Your task to perform on an android device: turn on sleep mode Image 0: 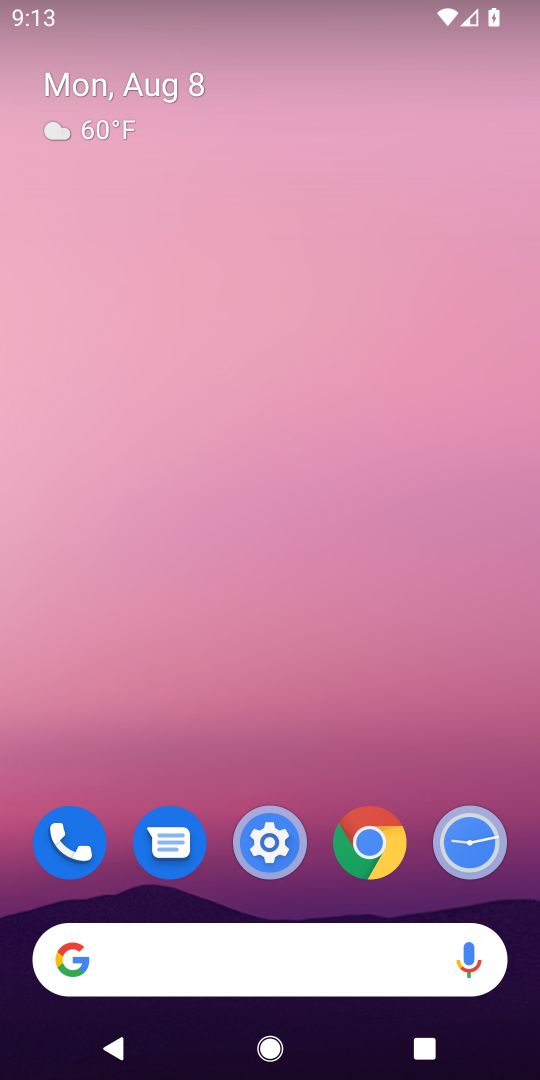
Step 0: click (268, 852)
Your task to perform on an android device: turn on sleep mode Image 1: 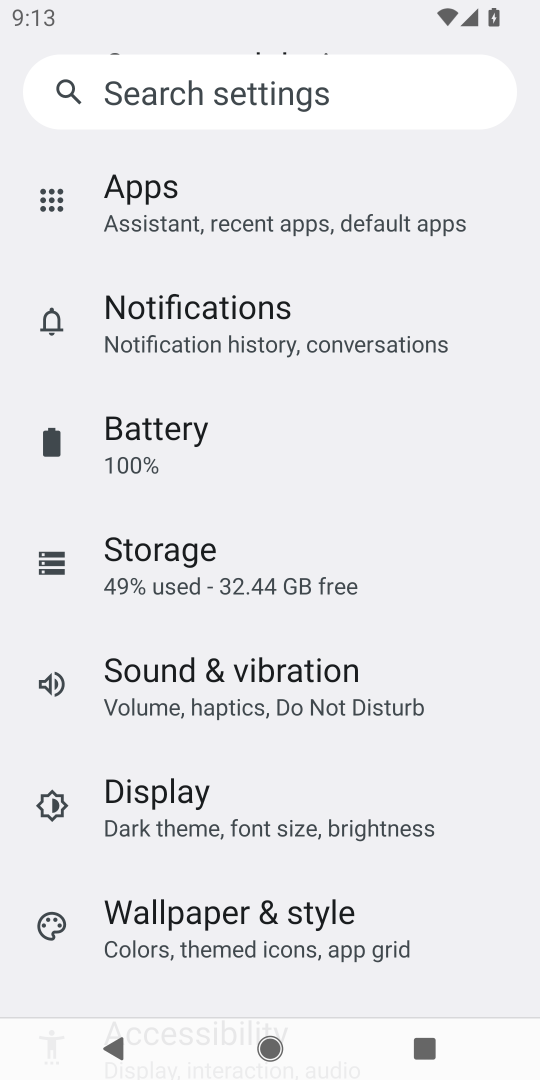
Step 1: click (208, 791)
Your task to perform on an android device: turn on sleep mode Image 2: 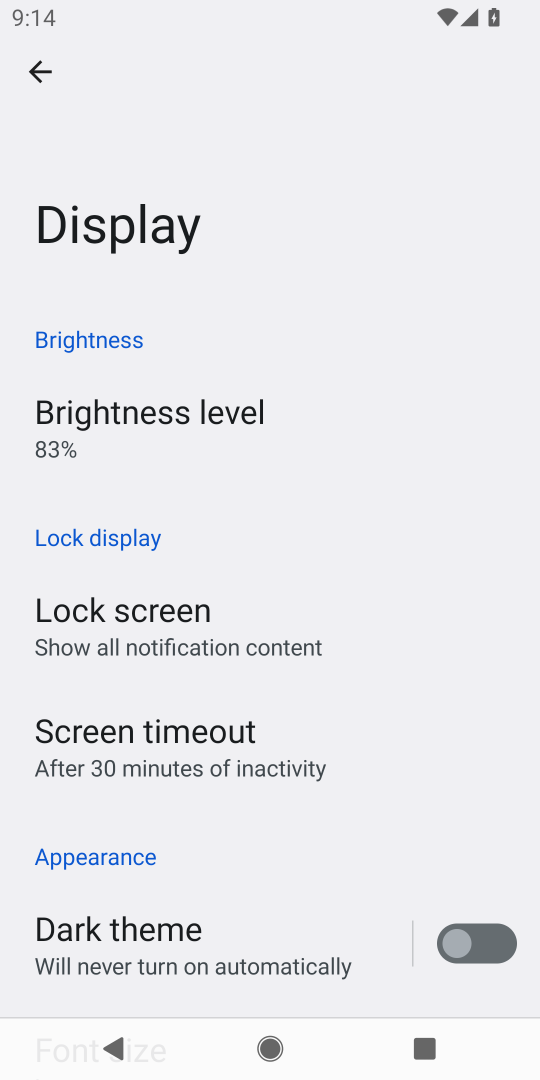
Step 2: task complete